Your task to perform on an android device: Do I have any events this weekend? Image 0: 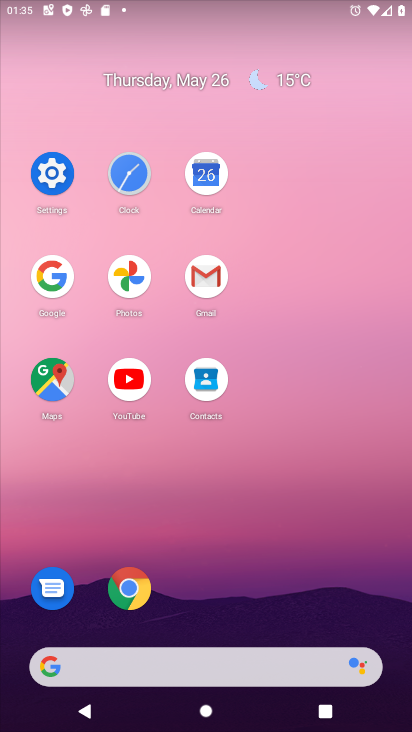
Step 0: click (204, 179)
Your task to perform on an android device: Do I have any events this weekend? Image 1: 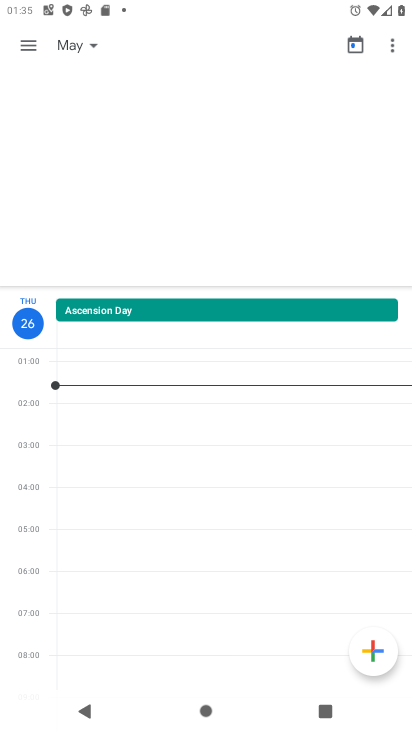
Step 1: click (11, 48)
Your task to perform on an android device: Do I have any events this weekend? Image 2: 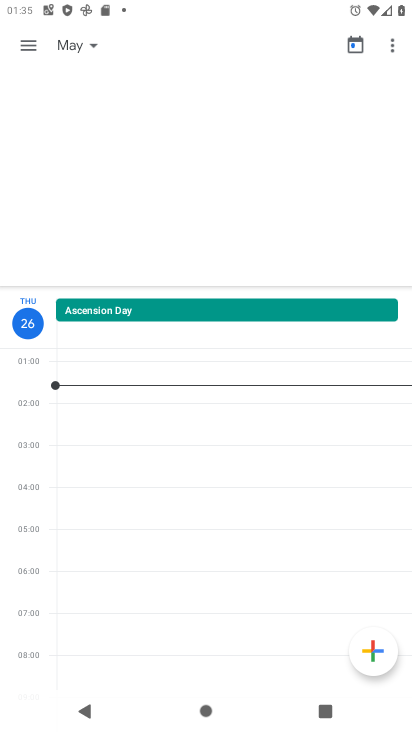
Step 2: click (29, 44)
Your task to perform on an android device: Do I have any events this weekend? Image 3: 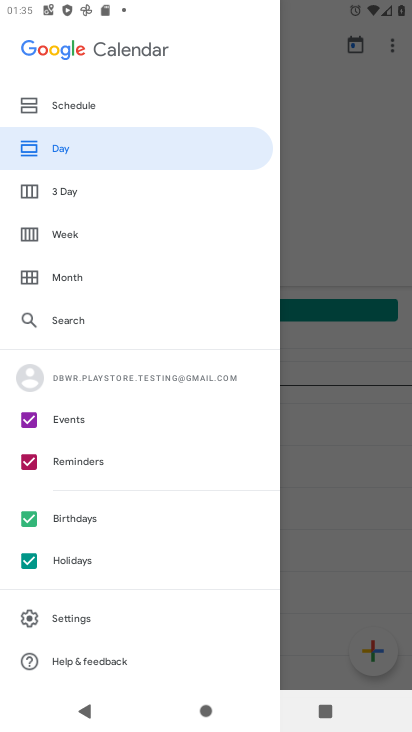
Step 3: click (109, 238)
Your task to perform on an android device: Do I have any events this weekend? Image 4: 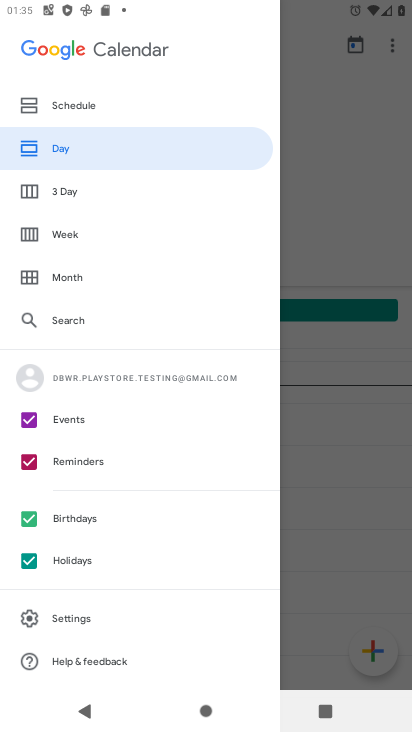
Step 4: click (105, 233)
Your task to perform on an android device: Do I have any events this weekend? Image 5: 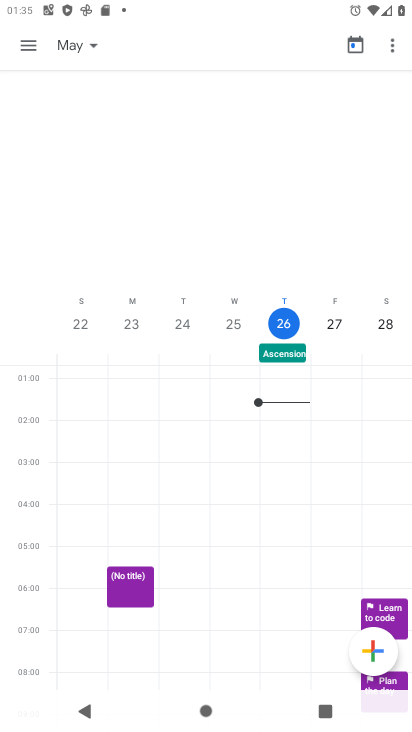
Step 5: task complete